Your task to perform on an android device: Open Google Maps Image 0: 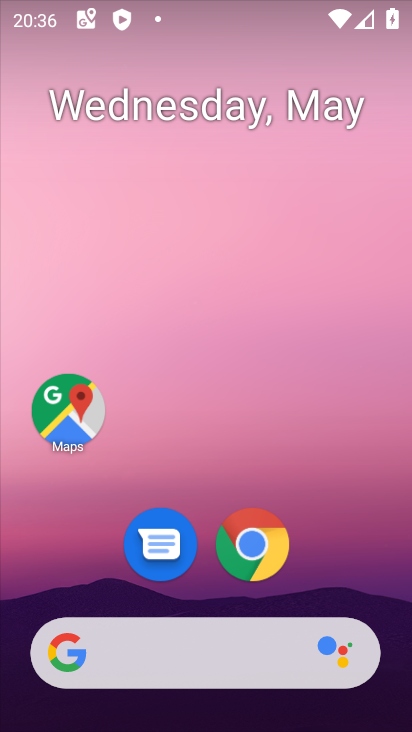
Step 0: click (80, 410)
Your task to perform on an android device: Open Google Maps Image 1: 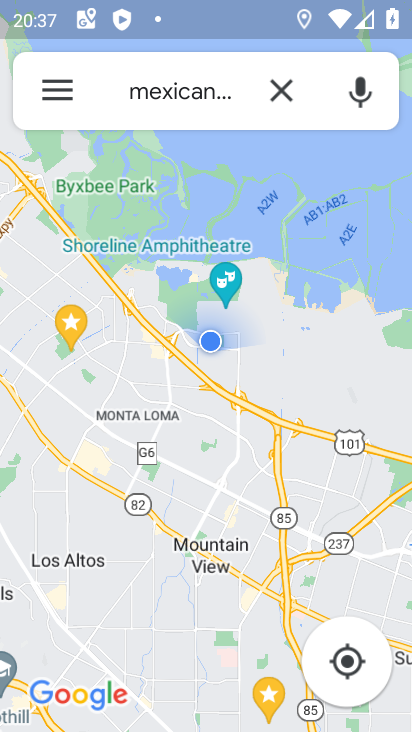
Step 1: task complete